Your task to perform on an android device: Go to Wikipedia Image 0: 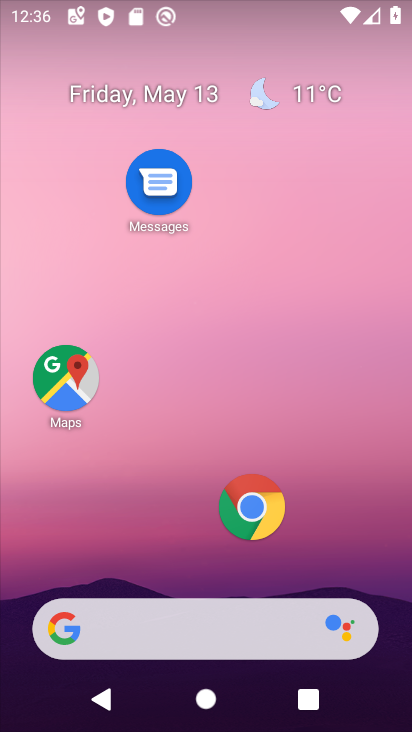
Step 0: click (242, 499)
Your task to perform on an android device: Go to Wikipedia Image 1: 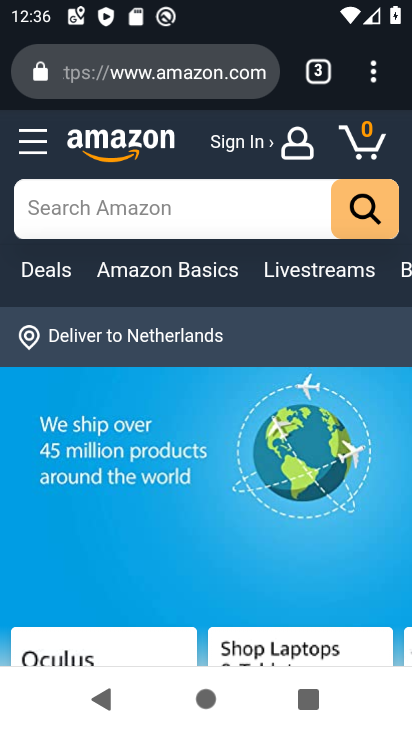
Step 1: click (325, 64)
Your task to perform on an android device: Go to Wikipedia Image 2: 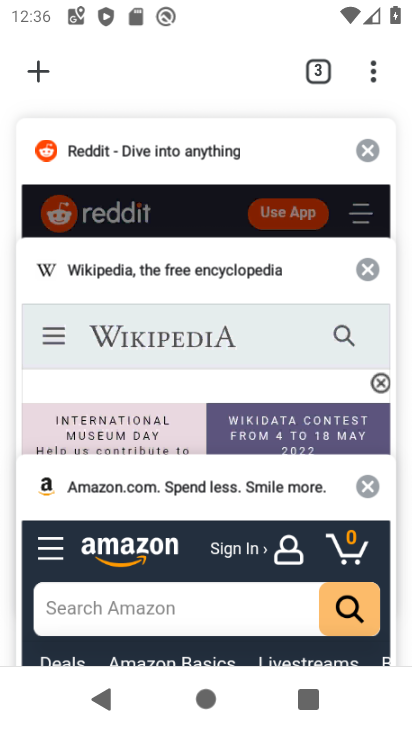
Step 2: click (49, 58)
Your task to perform on an android device: Go to Wikipedia Image 3: 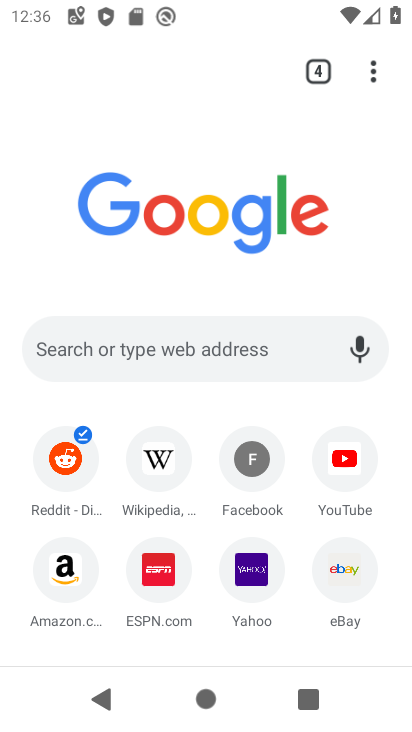
Step 3: click (178, 477)
Your task to perform on an android device: Go to Wikipedia Image 4: 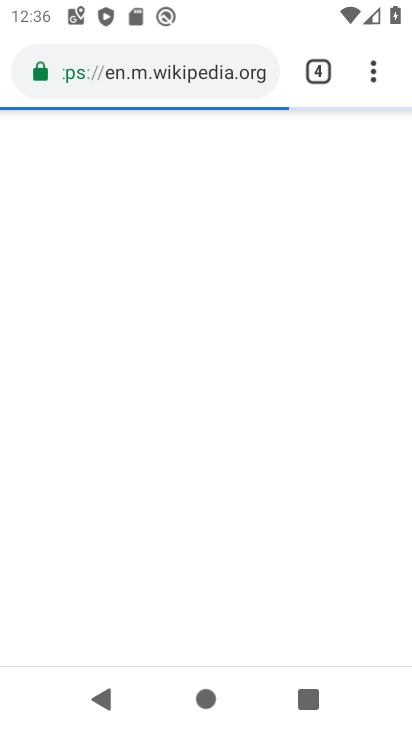
Step 4: task complete